Your task to perform on an android device: turn on bluetooth scan Image 0: 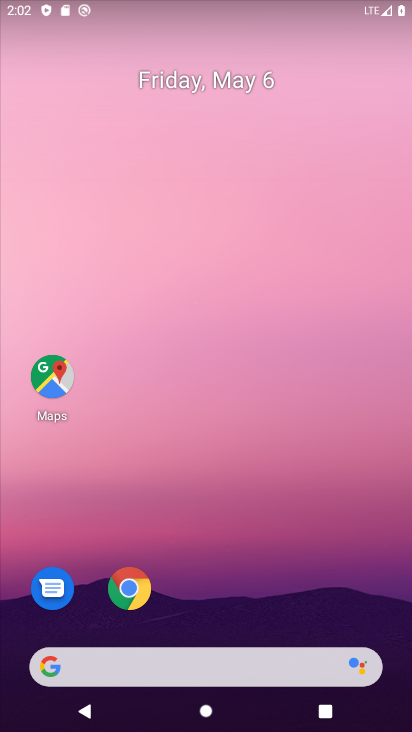
Step 0: drag from (340, 562) to (312, 128)
Your task to perform on an android device: turn on bluetooth scan Image 1: 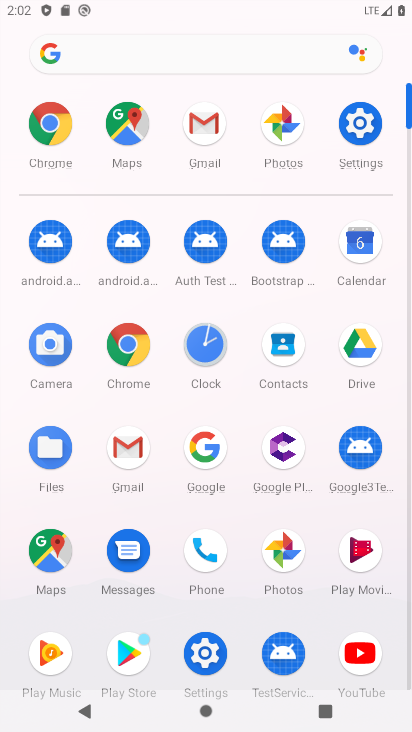
Step 1: click (348, 126)
Your task to perform on an android device: turn on bluetooth scan Image 2: 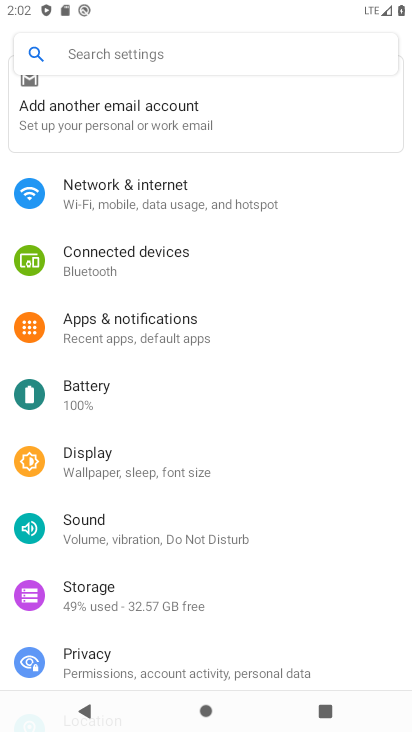
Step 2: drag from (312, 542) to (282, 203)
Your task to perform on an android device: turn on bluetooth scan Image 3: 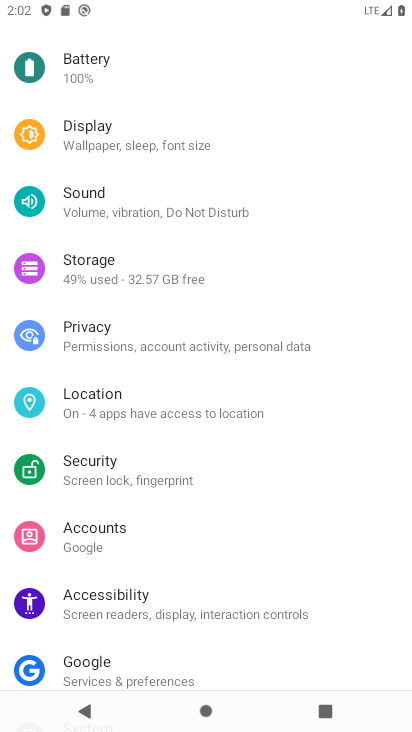
Step 3: drag from (338, 498) to (365, 359)
Your task to perform on an android device: turn on bluetooth scan Image 4: 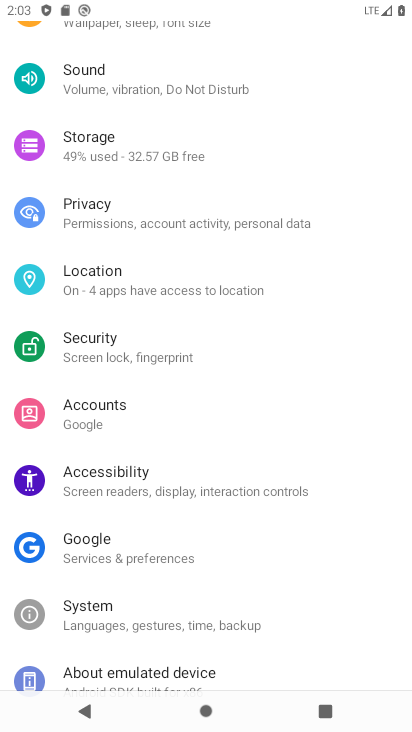
Step 4: click (122, 280)
Your task to perform on an android device: turn on bluetooth scan Image 5: 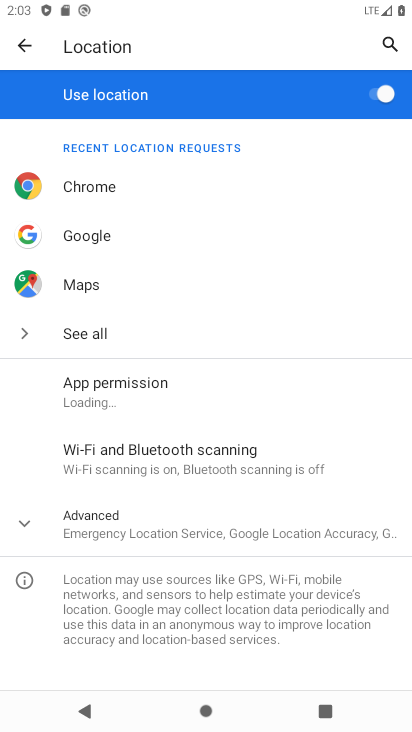
Step 5: click (152, 439)
Your task to perform on an android device: turn on bluetooth scan Image 6: 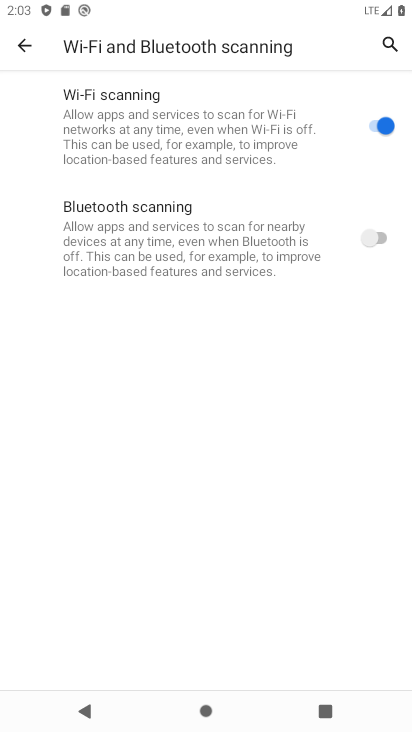
Step 6: click (383, 232)
Your task to perform on an android device: turn on bluetooth scan Image 7: 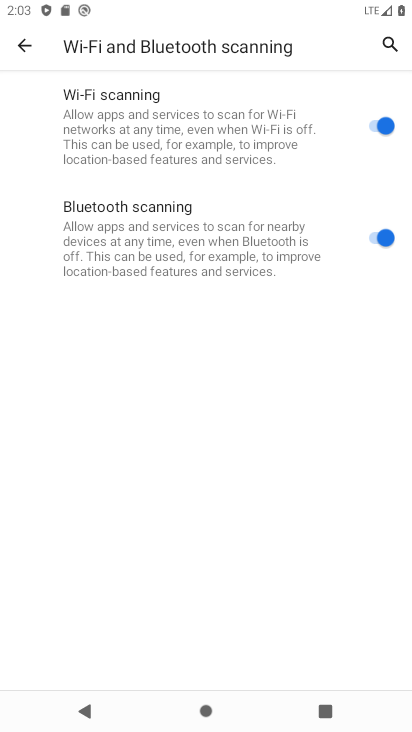
Step 7: task complete